Your task to perform on an android device: Go to internet settings Image 0: 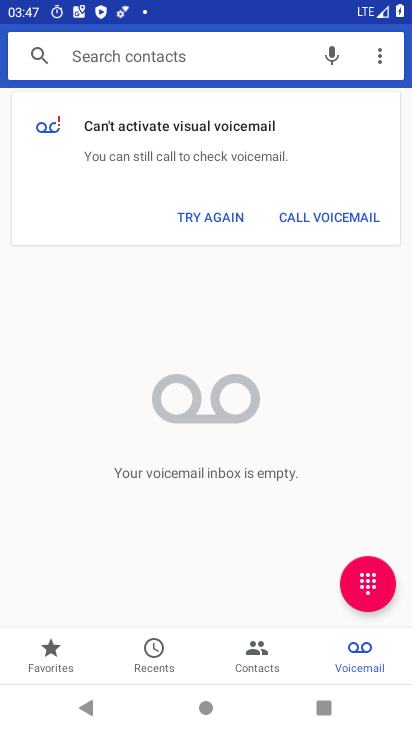
Step 0: press home button
Your task to perform on an android device: Go to internet settings Image 1: 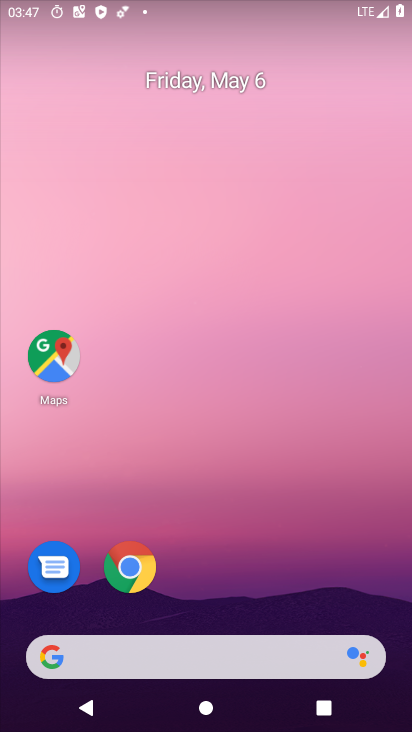
Step 1: drag from (251, 588) to (278, 217)
Your task to perform on an android device: Go to internet settings Image 2: 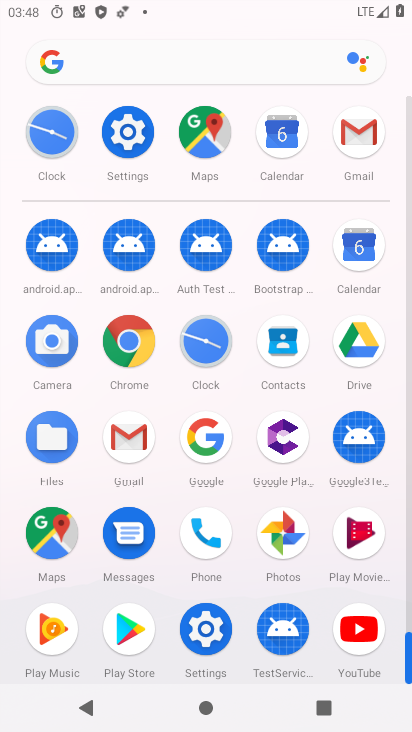
Step 2: click (204, 629)
Your task to perform on an android device: Go to internet settings Image 3: 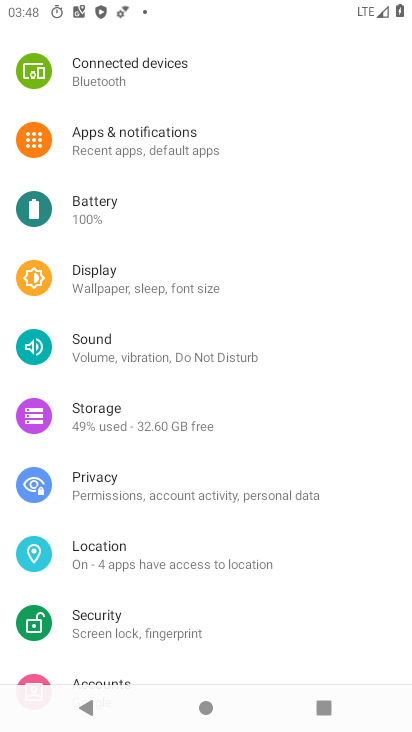
Step 3: drag from (174, 136) to (196, 190)
Your task to perform on an android device: Go to internet settings Image 4: 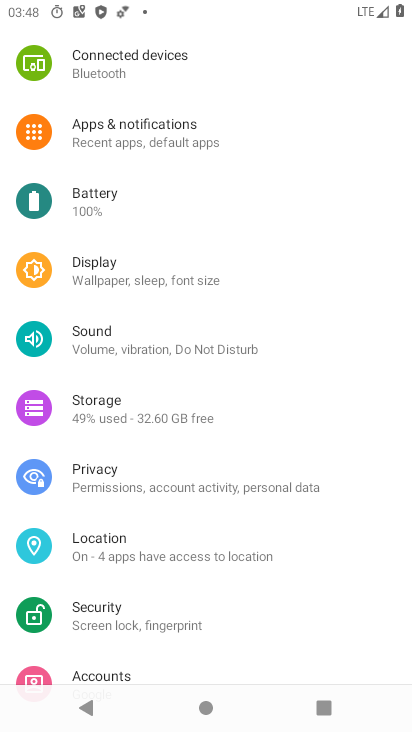
Step 4: drag from (147, 109) to (157, 325)
Your task to perform on an android device: Go to internet settings Image 5: 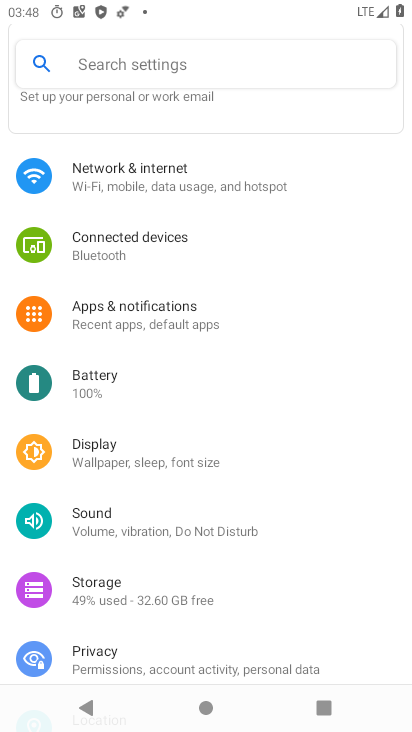
Step 5: click (156, 187)
Your task to perform on an android device: Go to internet settings Image 6: 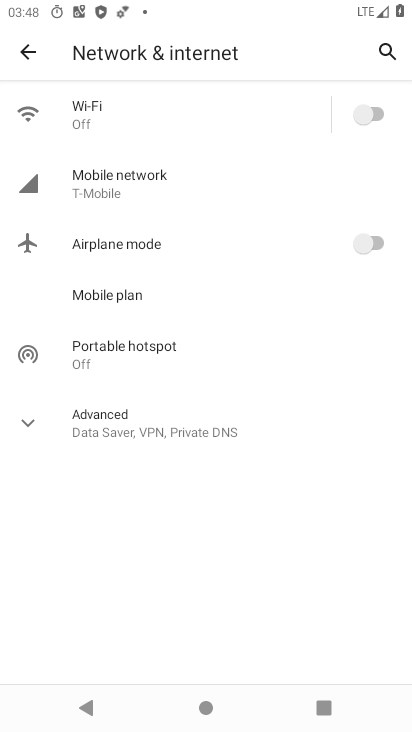
Step 6: task complete